Your task to perform on an android device: Open the calendar app, open the side menu, and click the "Day" option Image 0: 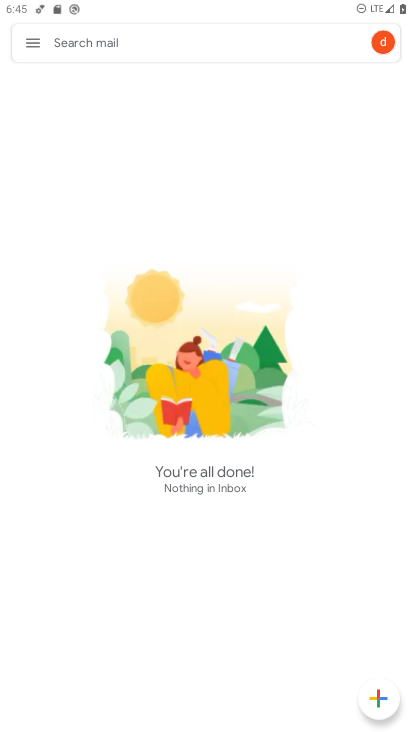
Step 0: press home button
Your task to perform on an android device: Open the calendar app, open the side menu, and click the "Day" option Image 1: 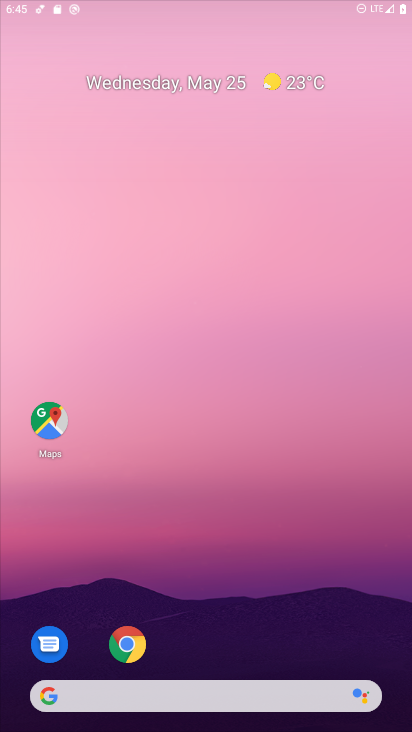
Step 1: drag from (370, 640) to (284, 149)
Your task to perform on an android device: Open the calendar app, open the side menu, and click the "Day" option Image 2: 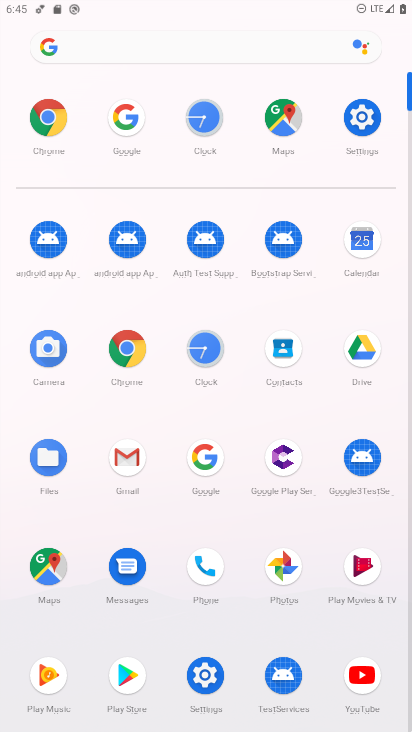
Step 2: click (351, 255)
Your task to perform on an android device: Open the calendar app, open the side menu, and click the "Day" option Image 3: 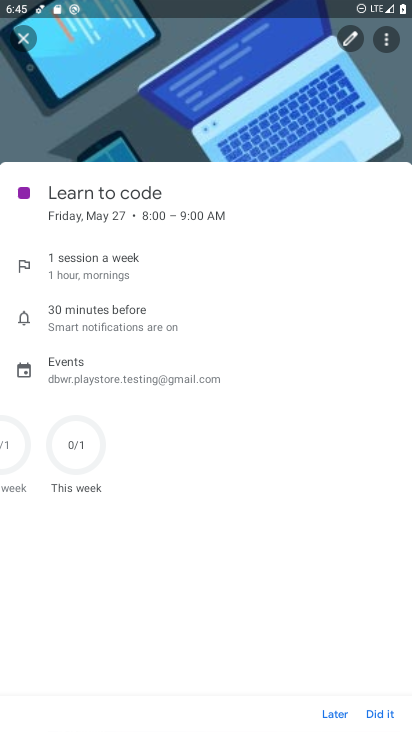
Step 3: press back button
Your task to perform on an android device: Open the calendar app, open the side menu, and click the "Day" option Image 4: 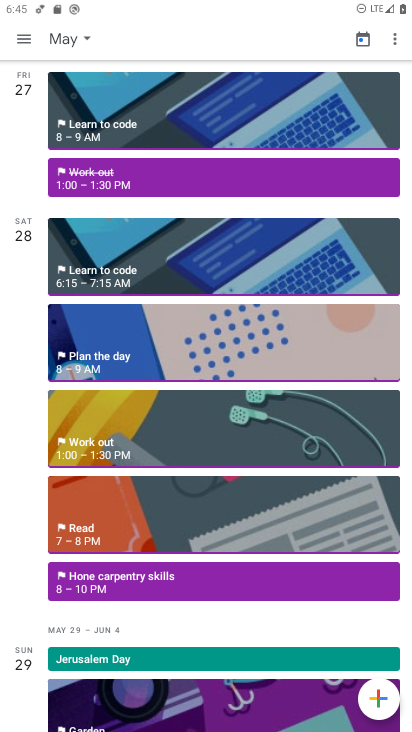
Step 4: click (29, 40)
Your task to perform on an android device: Open the calendar app, open the side menu, and click the "Day" option Image 5: 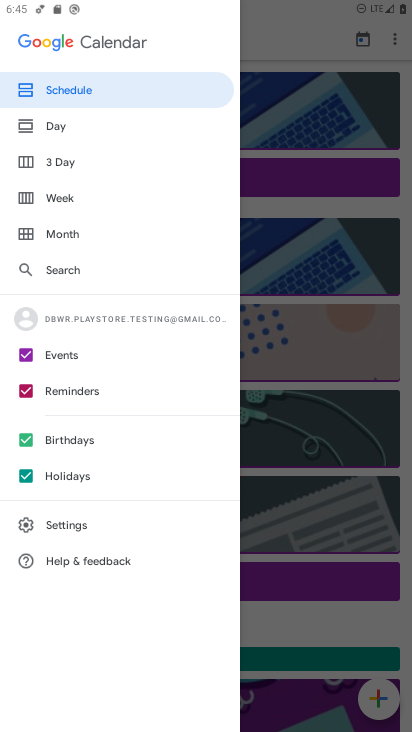
Step 5: click (93, 128)
Your task to perform on an android device: Open the calendar app, open the side menu, and click the "Day" option Image 6: 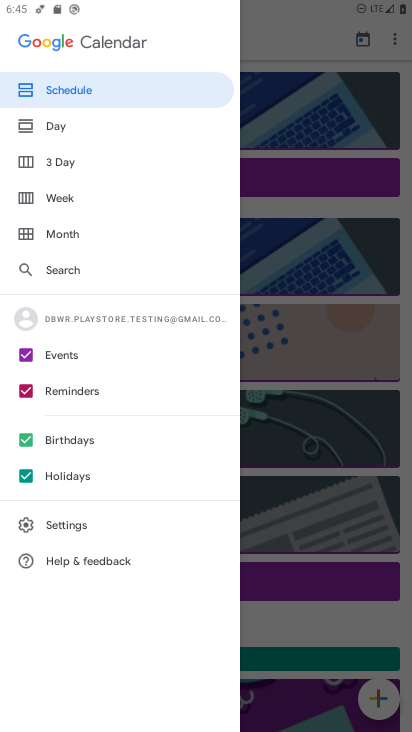
Step 6: click (94, 128)
Your task to perform on an android device: Open the calendar app, open the side menu, and click the "Day" option Image 7: 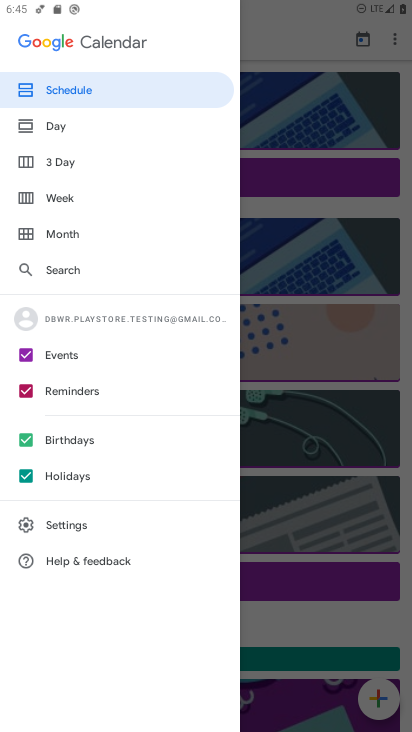
Step 7: click (40, 130)
Your task to perform on an android device: Open the calendar app, open the side menu, and click the "Day" option Image 8: 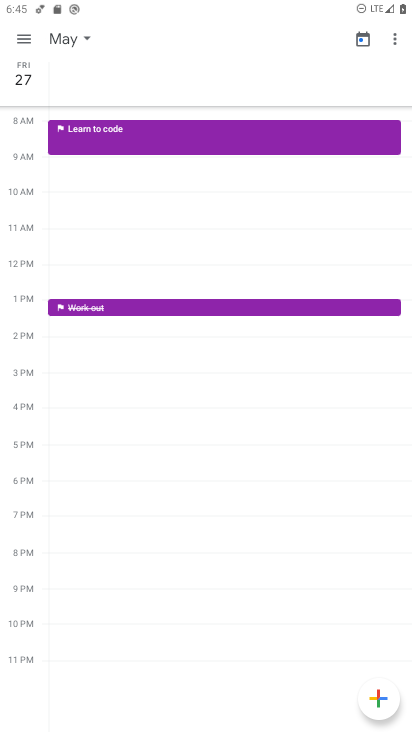
Step 8: task complete